Your task to perform on an android device: toggle translation in the chrome app Image 0: 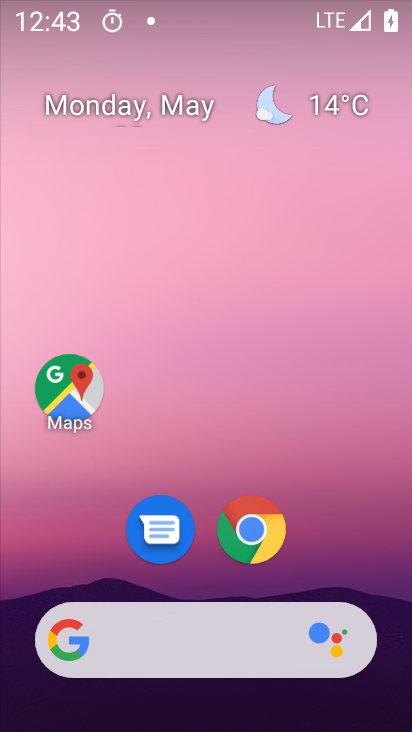
Step 0: drag from (393, 572) to (363, 240)
Your task to perform on an android device: toggle translation in the chrome app Image 1: 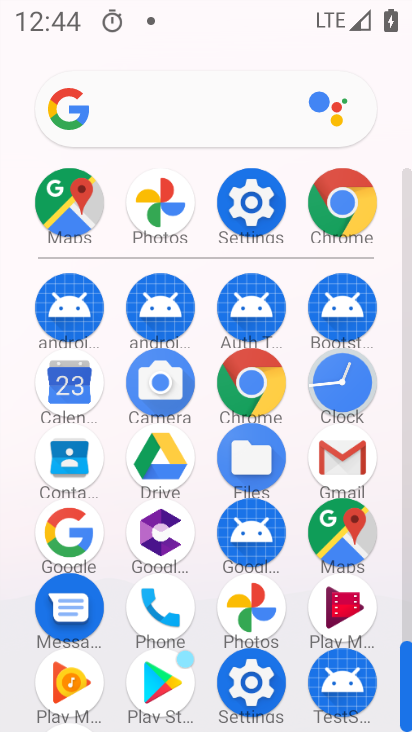
Step 1: click (266, 381)
Your task to perform on an android device: toggle translation in the chrome app Image 2: 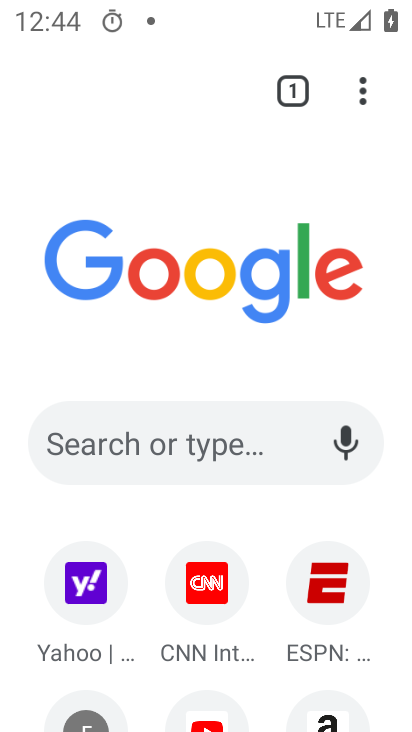
Step 2: click (360, 102)
Your task to perform on an android device: toggle translation in the chrome app Image 3: 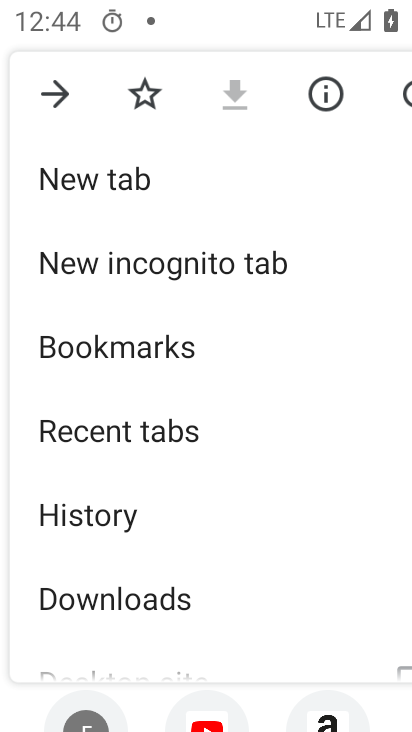
Step 3: drag from (319, 449) to (324, 356)
Your task to perform on an android device: toggle translation in the chrome app Image 4: 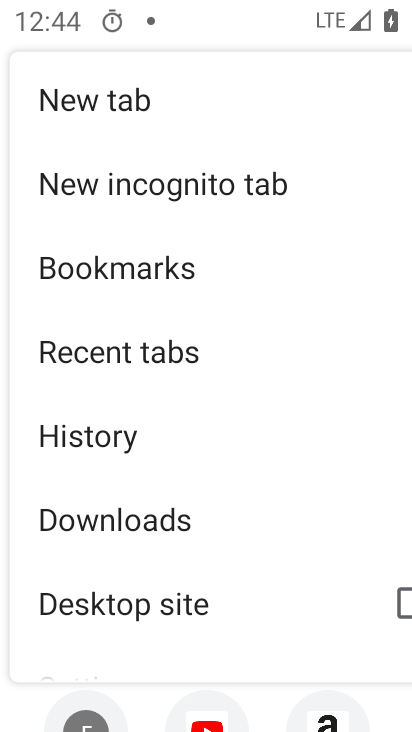
Step 4: drag from (321, 502) to (317, 401)
Your task to perform on an android device: toggle translation in the chrome app Image 5: 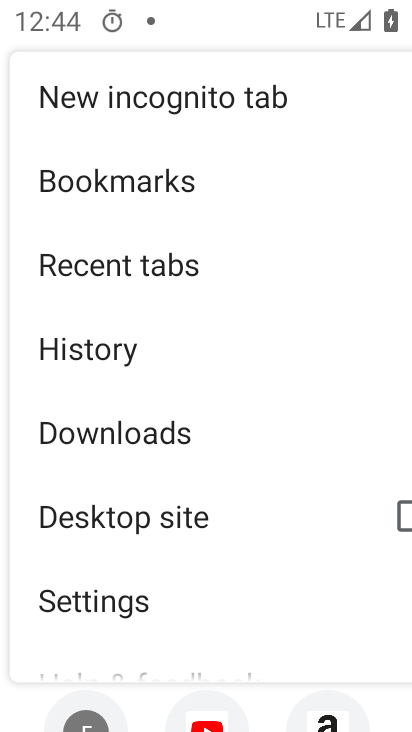
Step 5: drag from (292, 563) to (291, 484)
Your task to perform on an android device: toggle translation in the chrome app Image 6: 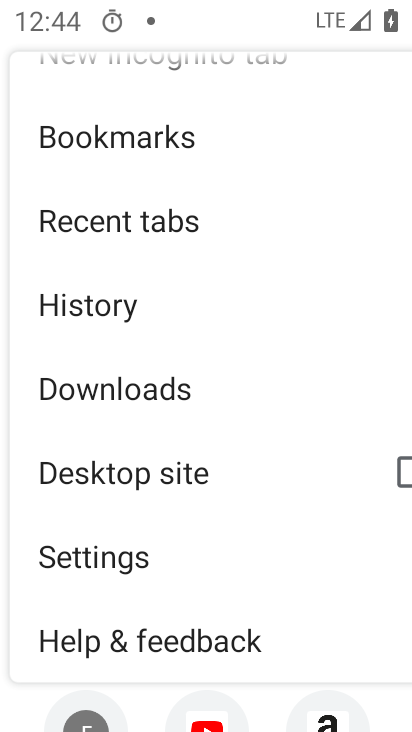
Step 6: click (172, 574)
Your task to perform on an android device: toggle translation in the chrome app Image 7: 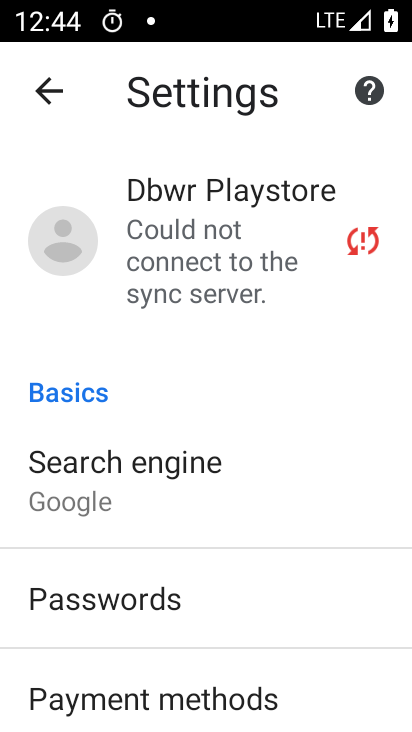
Step 7: drag from (346, 596) to (335, 497)
Your task to perform on an android device: toggle translation in the chrome app Image 8: 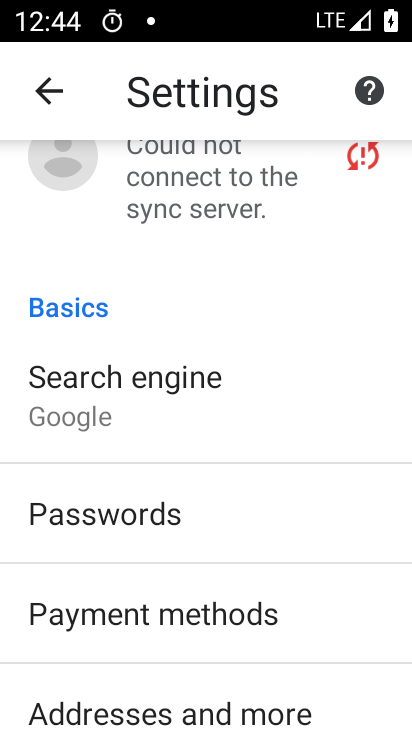
Step 8: drag from (341, 591) to (343, 535)
Your task to perform on an android device: toggle translation in the chrome app Image 9: 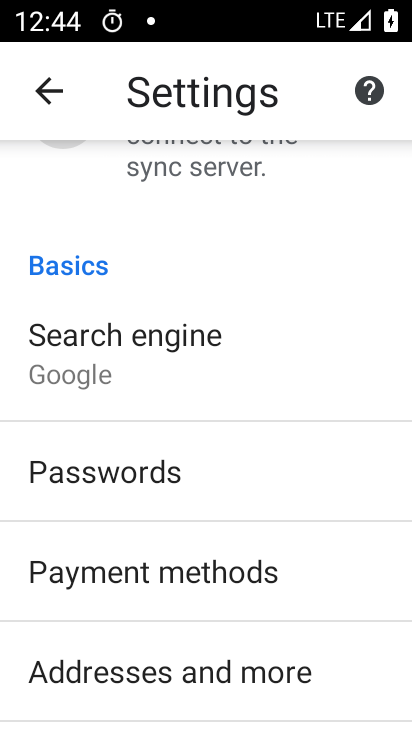
Step 9: drag from (347, 609) to (351, 568)
Your task to perform on an android device: toggle translation in the chrome app Image 10: 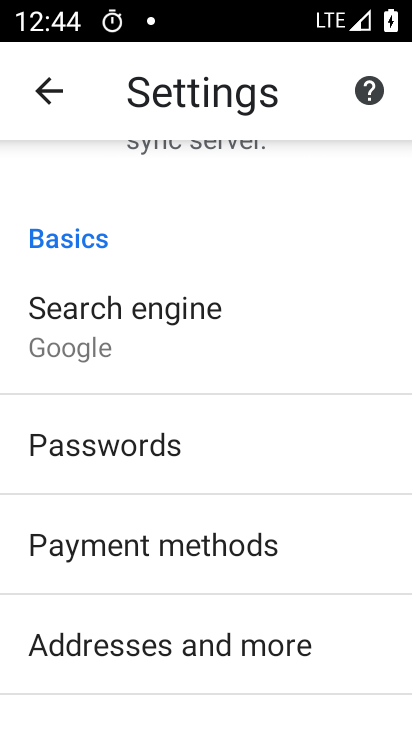
Step 10: drag from (339, 610) to (338, 511)
Your task to perform on an android device: toggle translation in the chrome app Image 11: 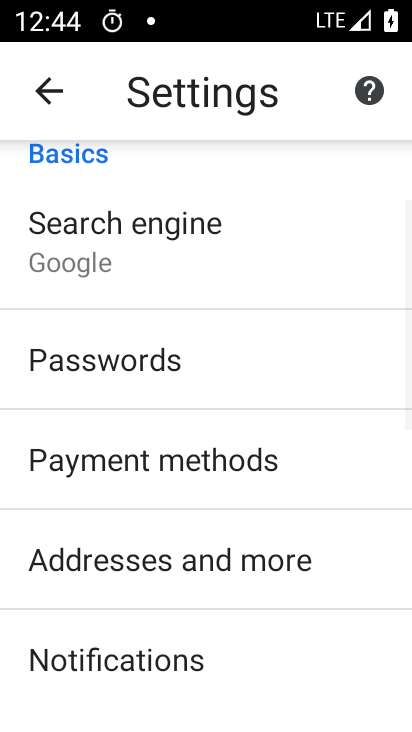
Step 11: drag from (325, 648) to (331, 546)
Your task to perform on an android device: toggle translation in the chrome app Image 12: 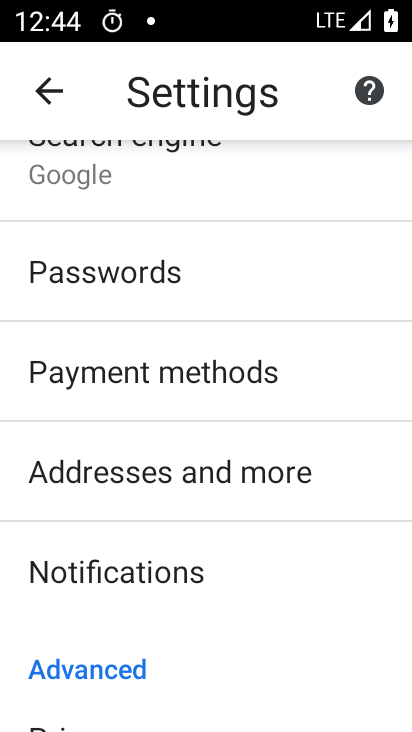
Step 12: drag from (336, 648) to (333, 525)
Your task to perform on an android device: toggle translation in the chrome app Image 13: 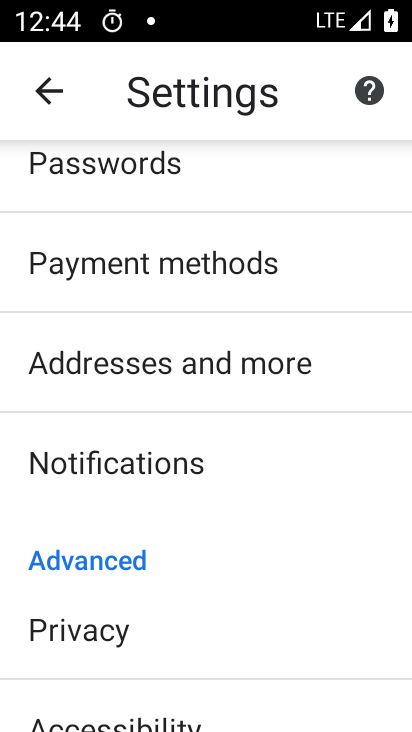
Step 13: drag from (320, 637) to (323, 530)
Your task to perform on an android device: toggle translation in the chrome app Image 14: 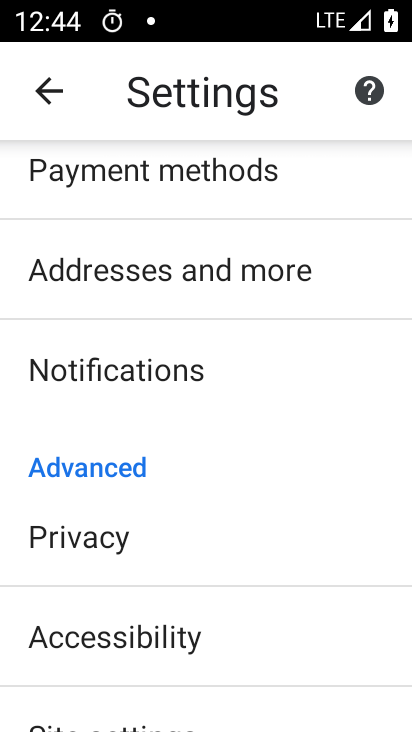
Step 14: drag from (311, 637) to (301, 536)
Your task to perform on an android device: toggle translation in the chrome app Image 15: 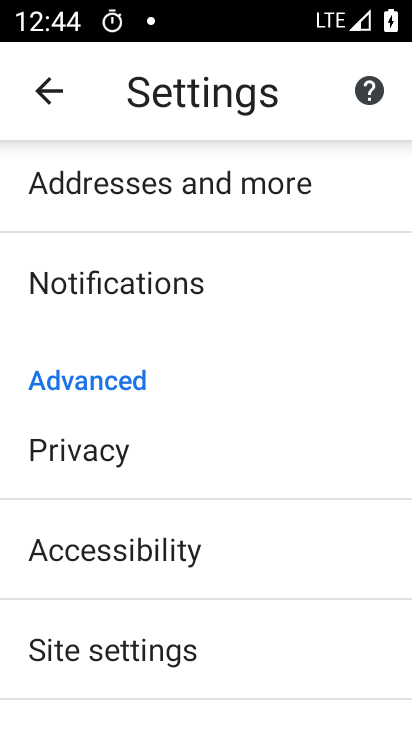
Step 15: drag from (289, 625) to (285, 546)
Your task to perform on an android device: toggle translation in the chrome app Image 16: 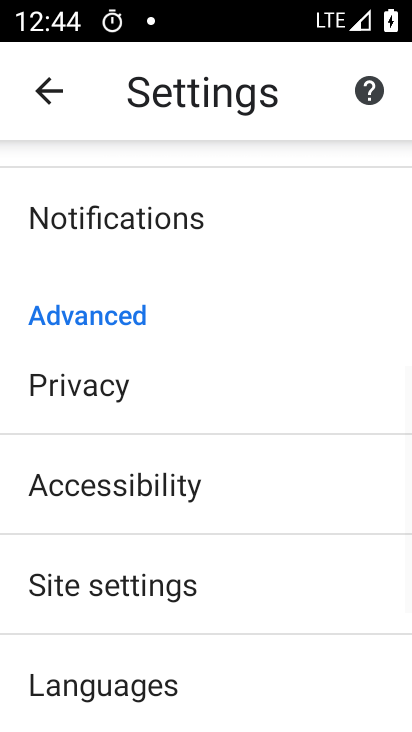
Step 16: drag from (288, 678) to (294, 563)
Your task to perform on an android device: toggle translation in the chrome app Image 17: 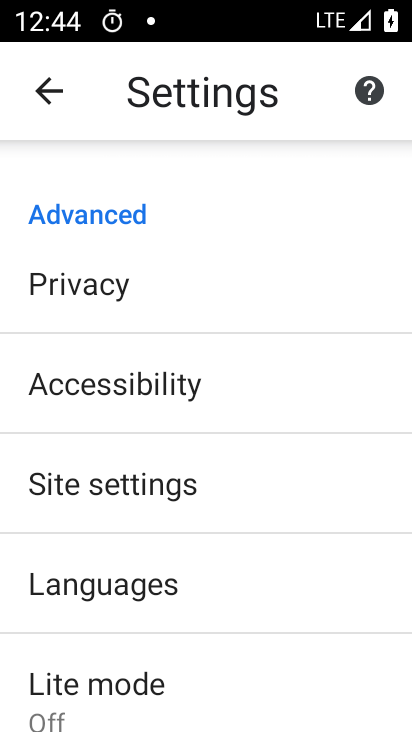
Step 17: drag from (294, 690) to (290, 590)
Your task to perform on an android device: toggle translation in the chrome app Image 18: 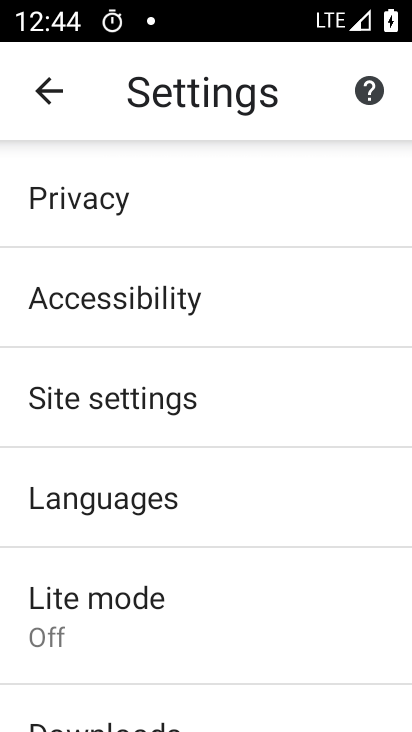
Step 18: drag from (258, 670) to (260, 593)
Your task to perform on an android device: toggle translation in the chrome app Image 19: 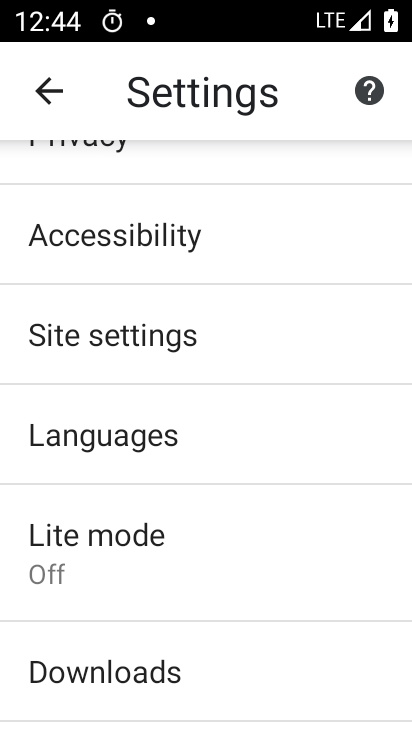
Step 19: drag from (262, 655) to (268, 619)
Your task to perform on an android device: toggle translation in the chrome app Image 20: 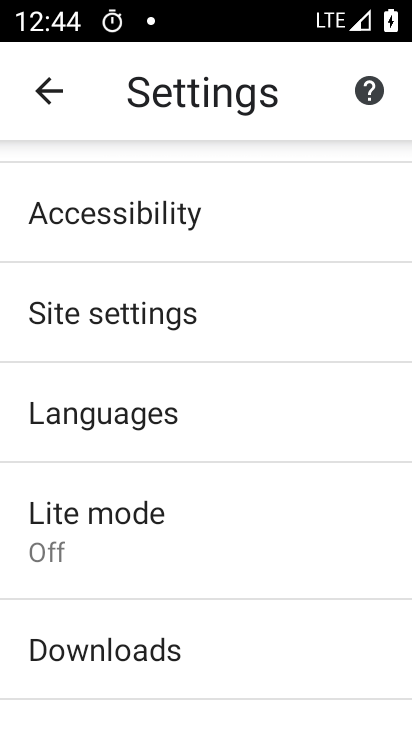
Step 20: drag from (267, 624) to (251, 490)
Your task to perform on an android device: toggle translation in the chrome app Image 21: 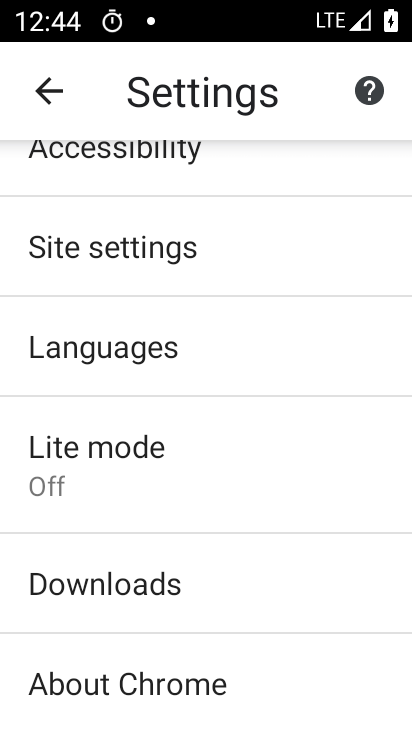
Step 21: click (237, 372)
Your task to perform on an android device: toggle translation in the chrome app Image 22: 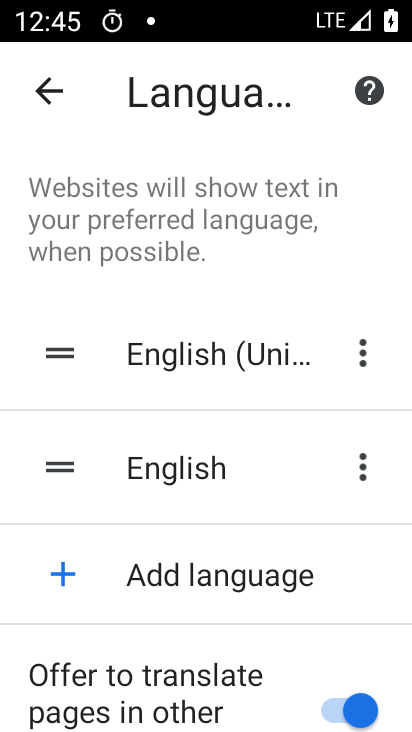
Step 22: drag from (297, 652) to (286, 548)
Your task to perform on an android device: toggle translation in the chrome app Image 23: 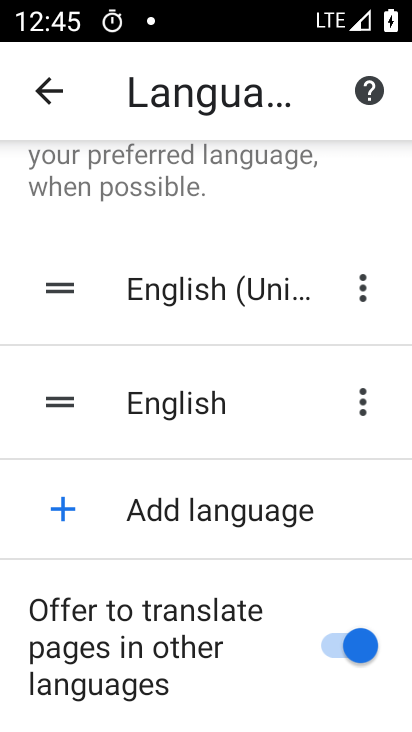
Step 23: drag from (284, 660) to (260, 540)
Your task to perform on an android device: toggle translation in the chrome app Image 24: 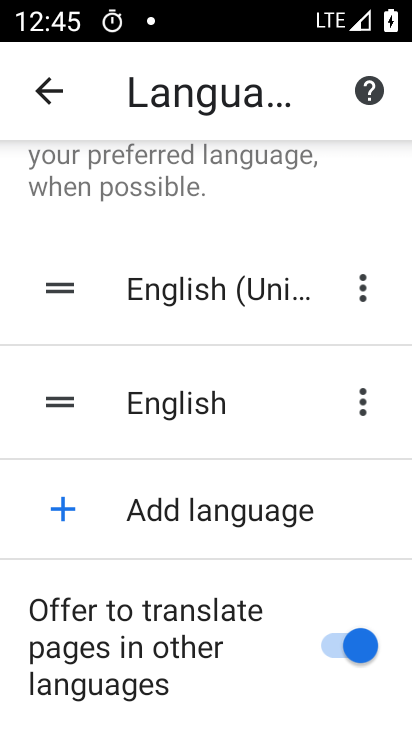
Step 24: click (342, 656)
Your task to perform on an android device: toggle translation in the chrome app Image 25: 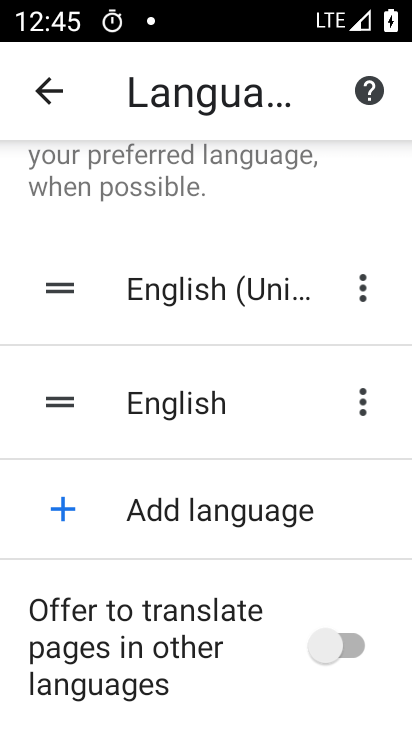
Step 25: task complete